Your task to perform on an android device: check battery use Image 0: 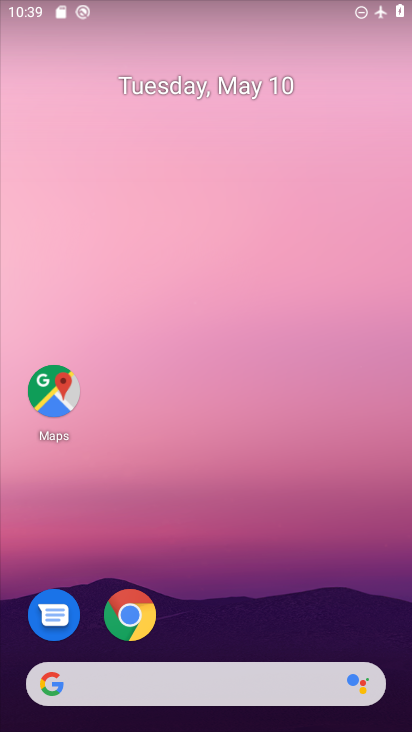
Step 0: drag from (227, 621) to (279, 289)
Your task to perform on an android device: check battery use Image 1: 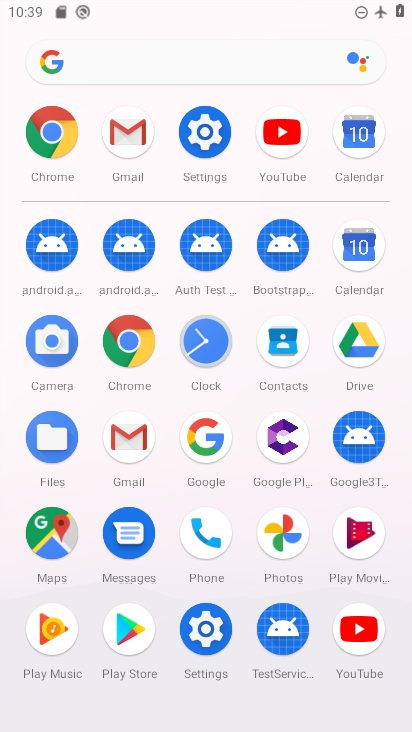
Step 1: click (210, 114)
Your task to perform on an android device: check battery use Image 2: 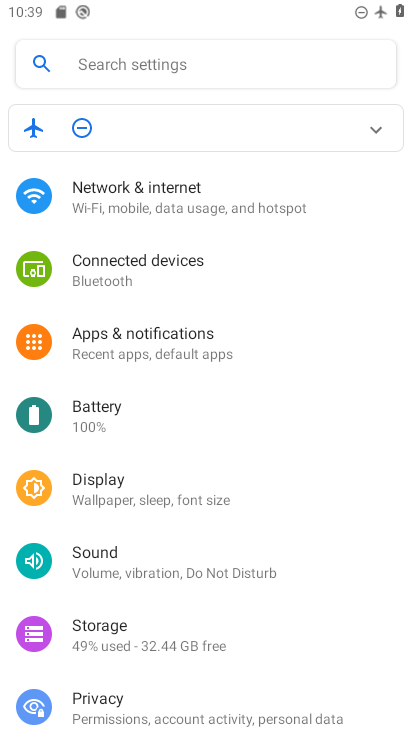
Step 2: click (132, 419)
Your task to perform on an android device: check battery use Image 3: 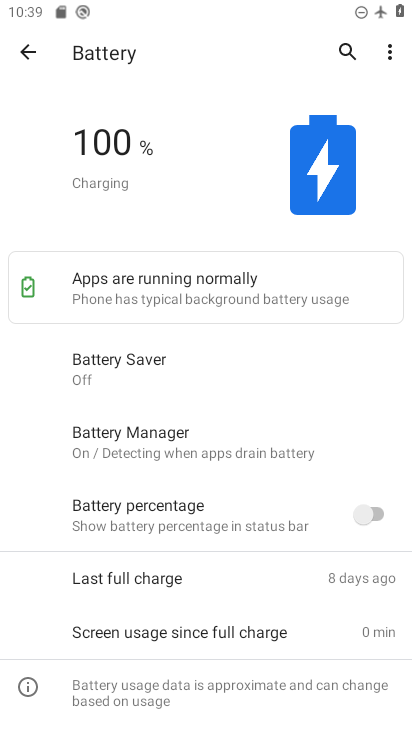
Step 3: drag from (185, 521) to (273, 721)
Your task to perform on an android device: check battery use Image 4: 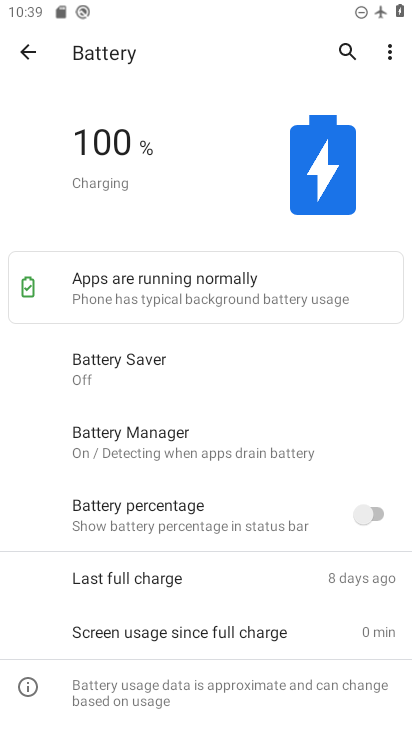
Step 4: click (389, 56)
Your task to perform on an android device: check battery use Image 5: 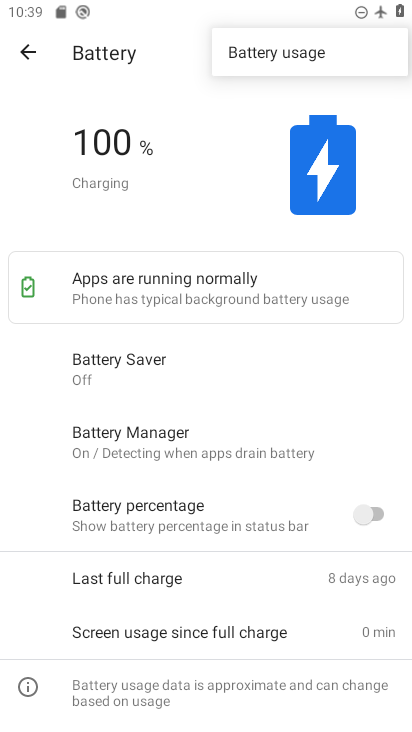
Step 5: click (277, 63)
Your task to perform on an android device: check battery use Image 6: 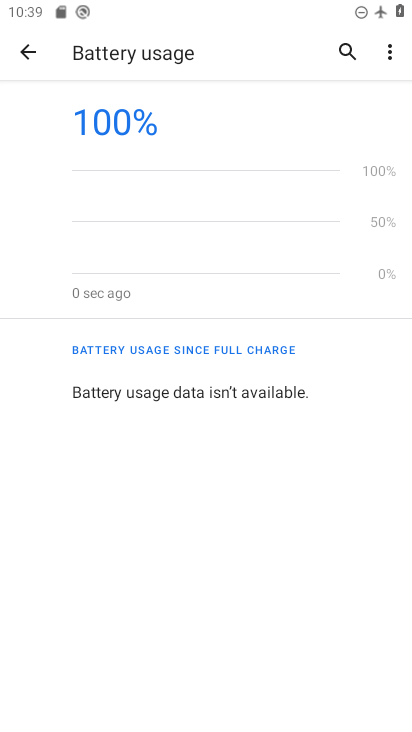
Step 6: task complete